Your task to perform on an android device: add a contact in the contacts app Image 0: 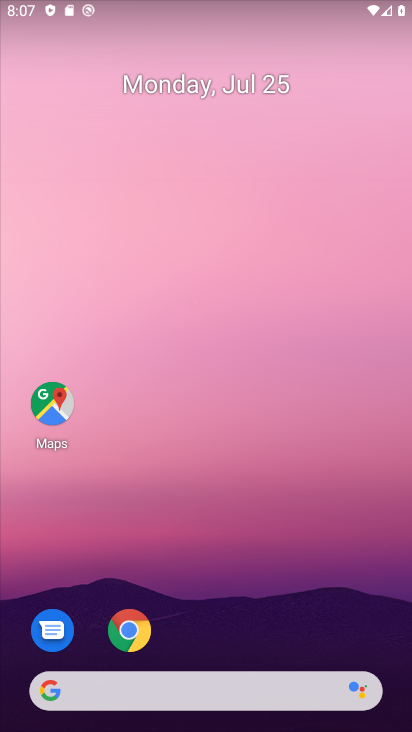
Step 0: drag from (92, 636) to (300, 240)
Your task to perform on an android device: add a contact in the contacts app Image 1: 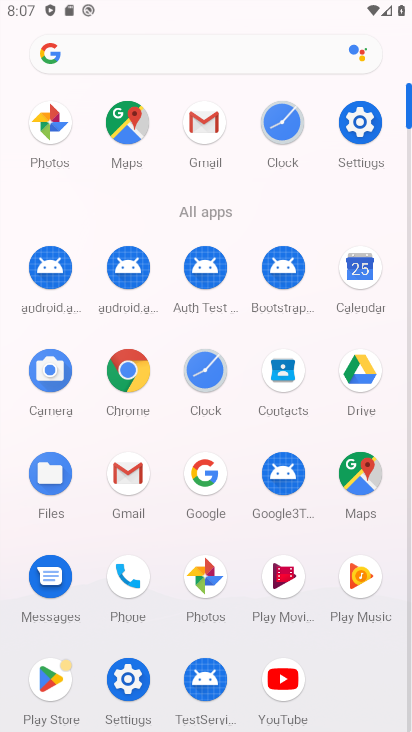
Step 1: click (291, 384)
Your task to perform on an android device: add a contact in the contacts app Image 2: 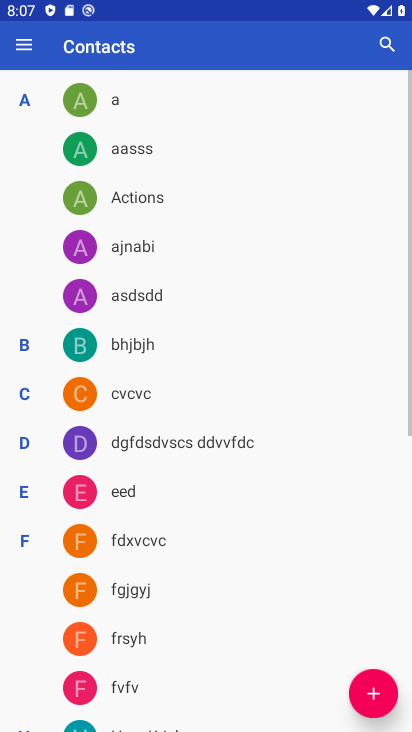
Step 2: click (371, 684)
Your task to perform on an android device: add a contact in the contacts app Image 3: 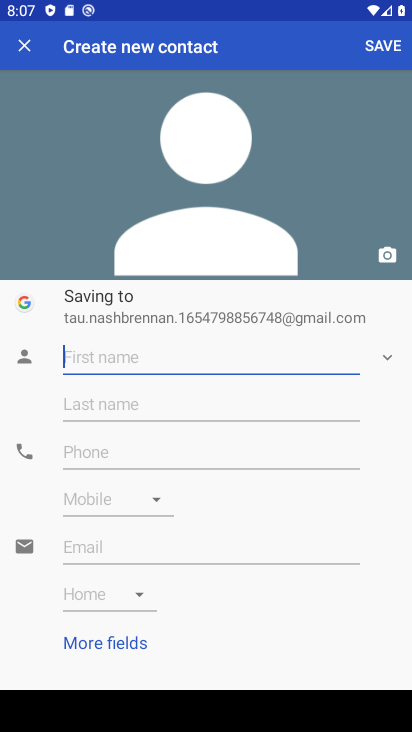
Step 3: type "thfgnty"
Your task to perform on an android device: add a contact in the contacts app Image 4: 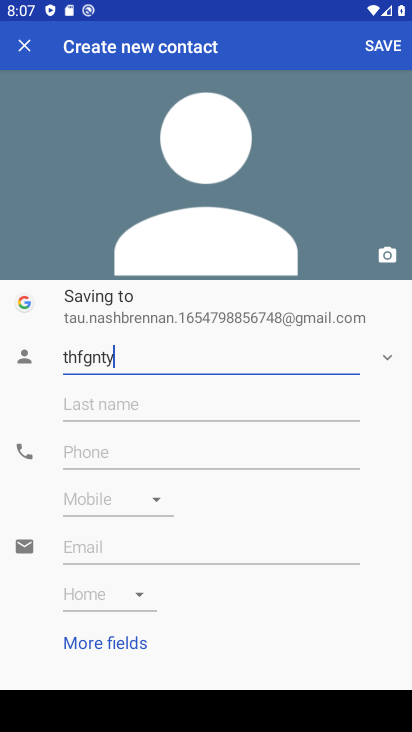
Step 4: type ""
Your task to perform on an android device: add a contact in the contacts app Image 5: 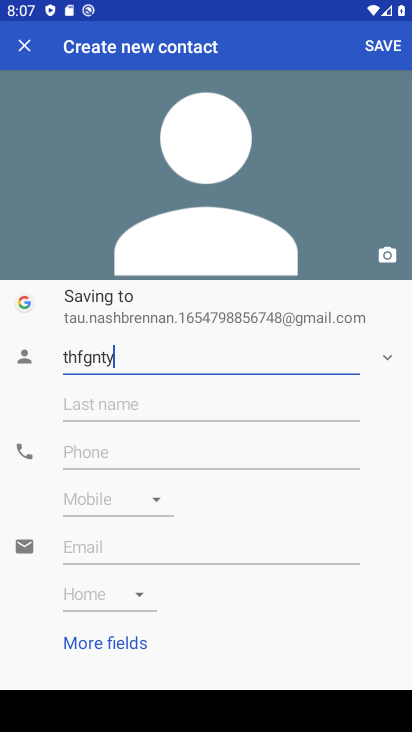
Step 5: click (385, 39)
Your task to perform on an android device: add a contact in the contacts app Image 6: 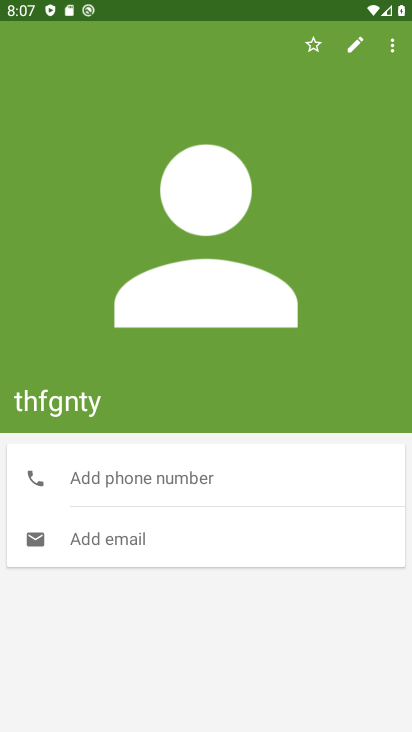
Step 6: task complete